Your task to perform on an android device: What's the weather today? Image 0: 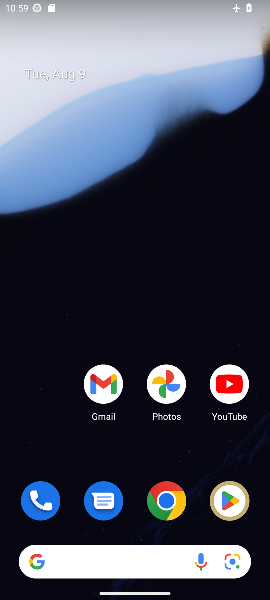
Step 0: click (134, 559)
Your task to perform on an android device: What's the weather today? Image 1: 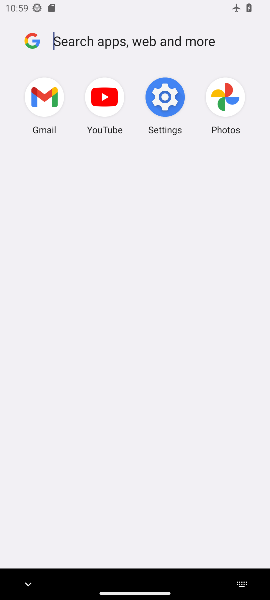
Step 1: type "weather"
Your task to perform on an android device: What's the weather today? Image 2: 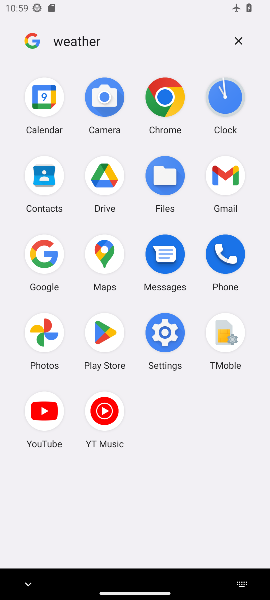
Step 2: click (37, 251)
Your task to perform on an android device: What's the weather today? Image 3: 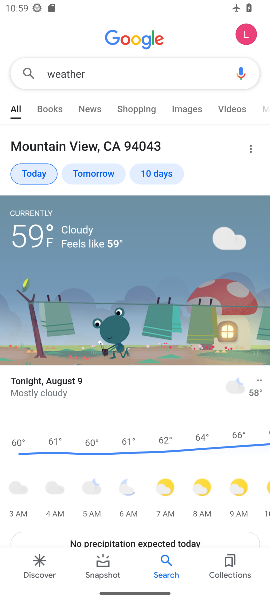
Step 3: task complete